Your task to perform on an android device: Search for seafood restaurants on Google Maps Image 0: 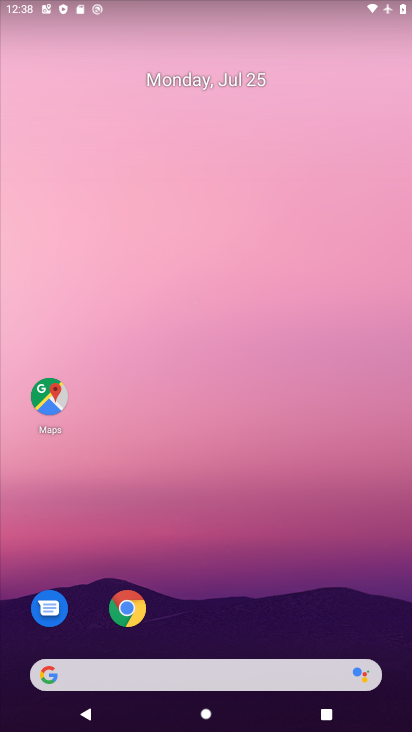
Step 0: drag from (246, 664) to (306, 214)
Your task to perform on an android device: Search for seafood restaurants on Google Maps Image 1: 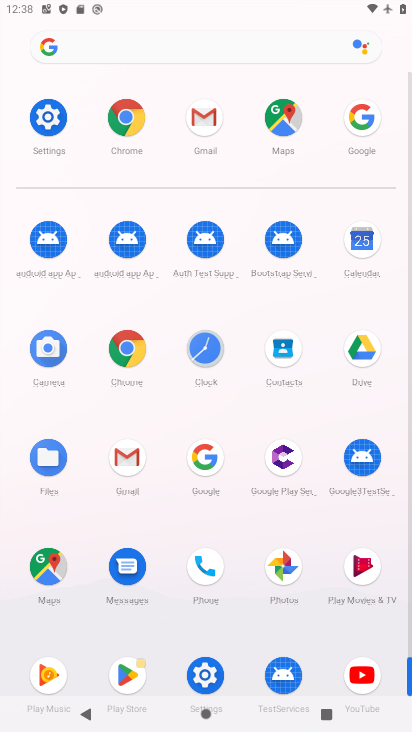
Step 1: click (58, 562)
Your task to perform on an android device: Search for seafood restaurants on Google Maps Image 2: 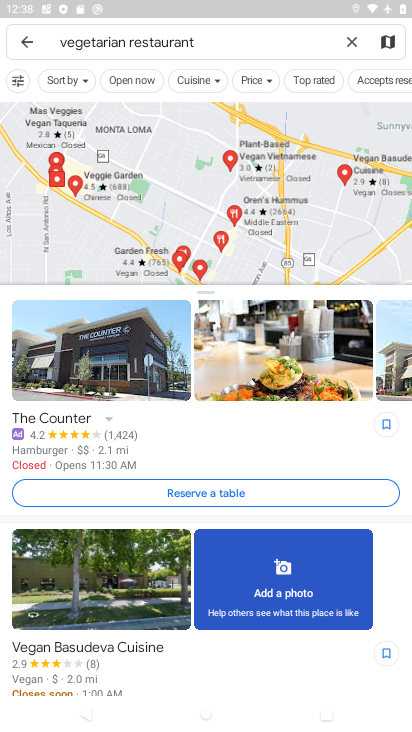
Step 2: click (352, 40)
Your task to perform on an android device: Search for seafood restaurants on Google Maps Image 3: 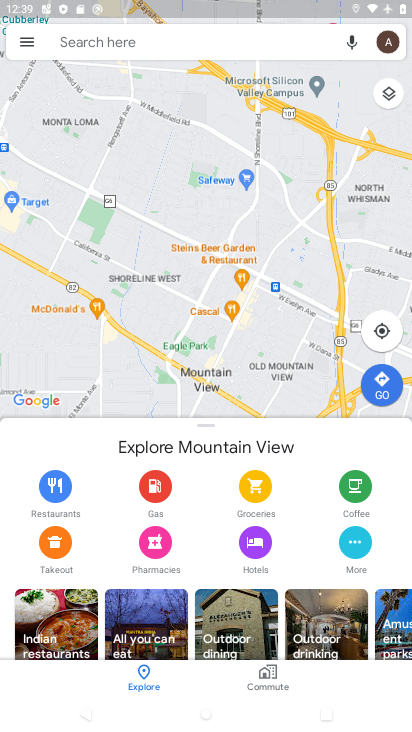
Step 3: click (260, 36)
Your task to perform on an android device: Search for seafood restaurants on Google Maps Image 4: 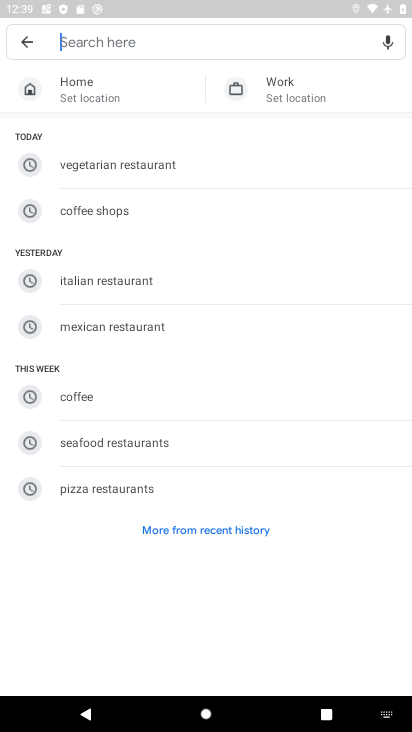
Step 4: click (114, 436)
Your task to perform on an android device: Search for seafood restaurants on Google Maps Image 5: 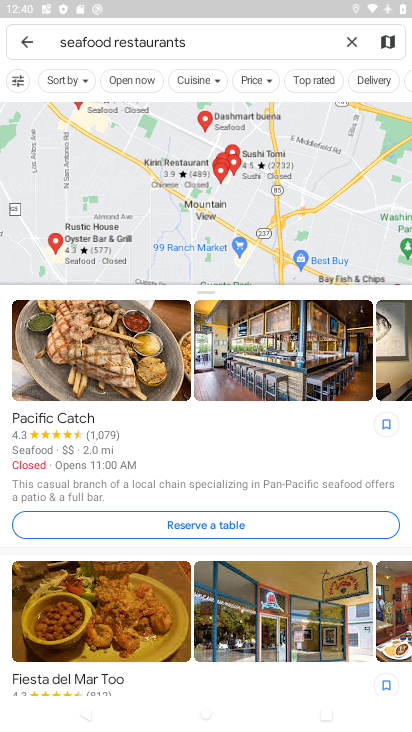
Step 5: task complete